Your task to perform on an android device: set the stopwatch Image 0: 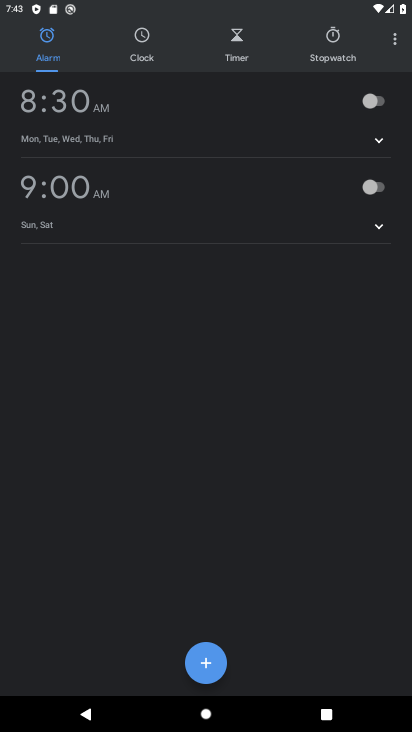
Step 0: click (325, 57)
Your task to perform on an android device: set the stopwatch Image 1: 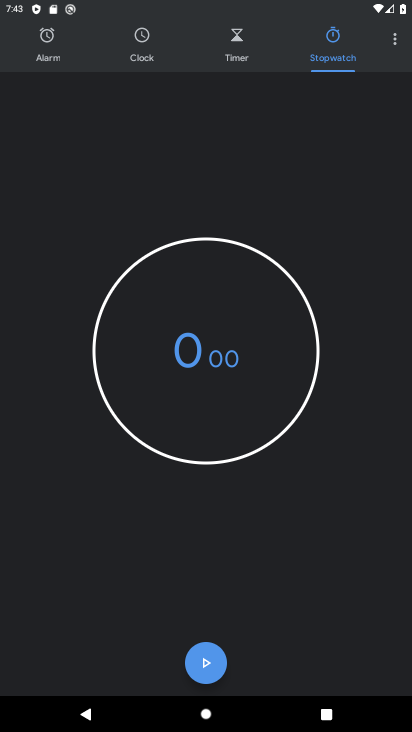
Step 1: click (205, 671)
Your task to perform on an android device: set the stopwatch Image 2: 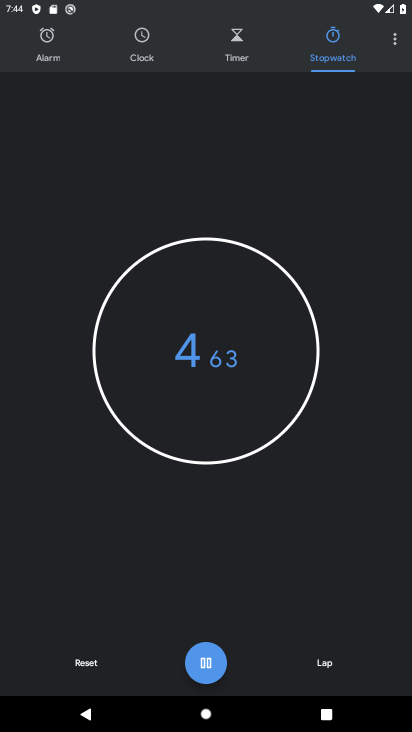
Step 2: task complete